Your task to perform on an android device: Go to Reddit.com Image 0: 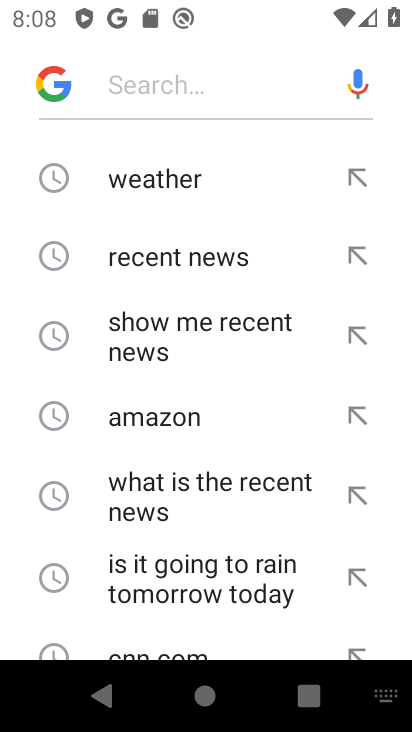
Step 0: press back button
Your task to perform on an android device: Go to Reddit.com Image 1: 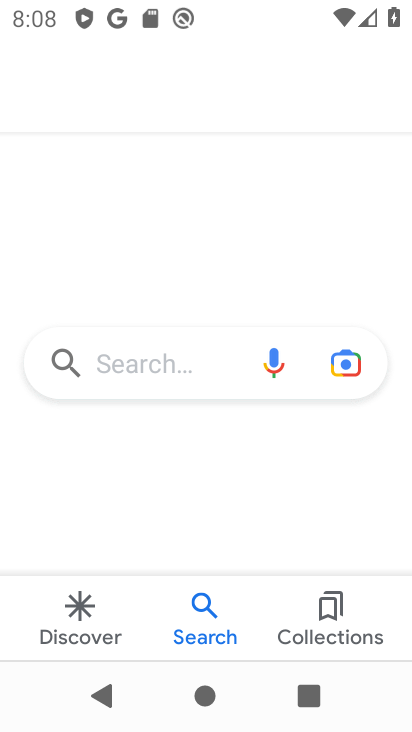
Step 1: press back button
Your task to perform on an android device: Go to Reddit.com Image 2: 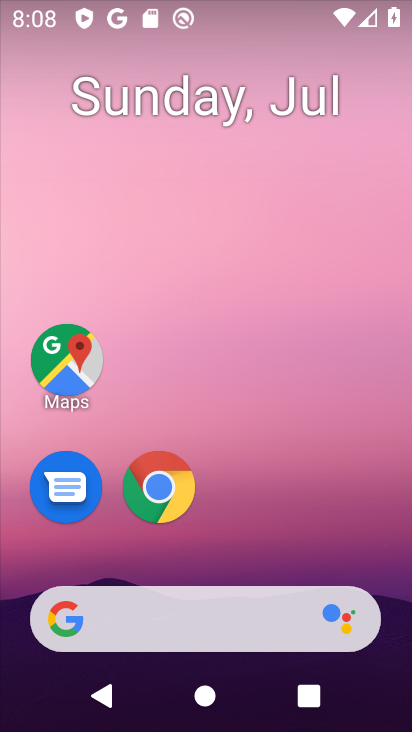
Step 2: click (159, 497)
Your task to perform on an android device: Go to Reddit.com Image 3: 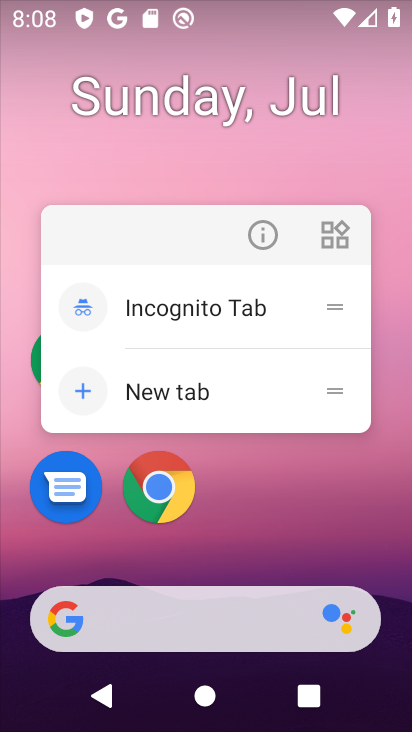
Step 3: click (174, 475)
Your task to perform on an android device: Go to Reddit.com Image 4: 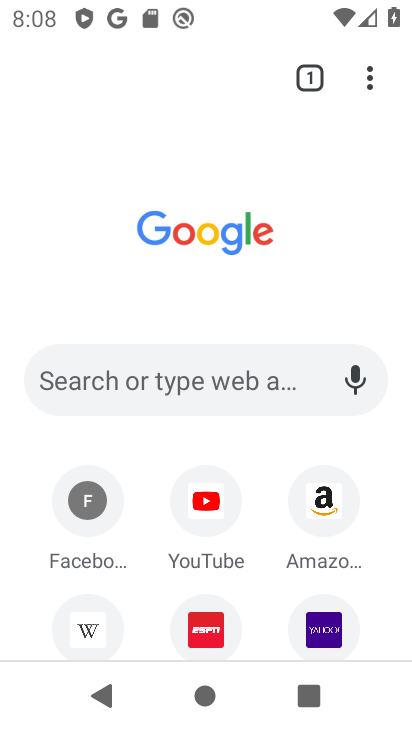
Step 4: click (174, 393)
Your task to perform on an android device: Go to Reddit.com Image 5: 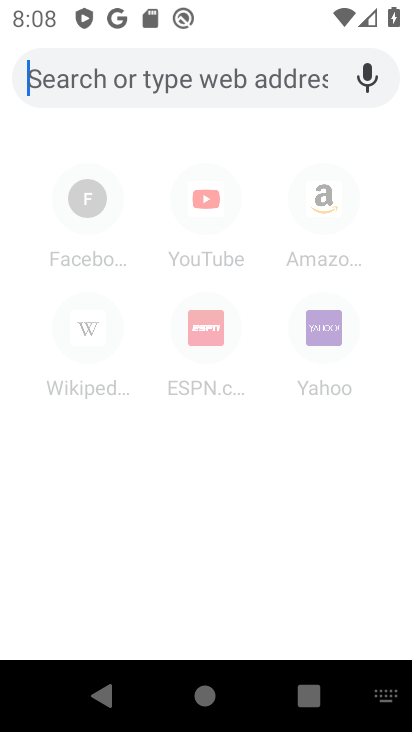
Step 5: type "reddit.com"
Your task to perform on an android device: Go to Reddit.com Image 6: 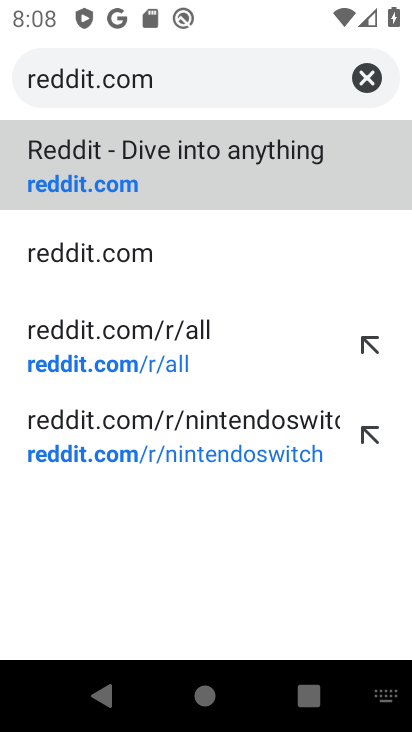
Step 6: click (188, 168)
Your task to perform on an android device: Go to Reddit.com Image 7: 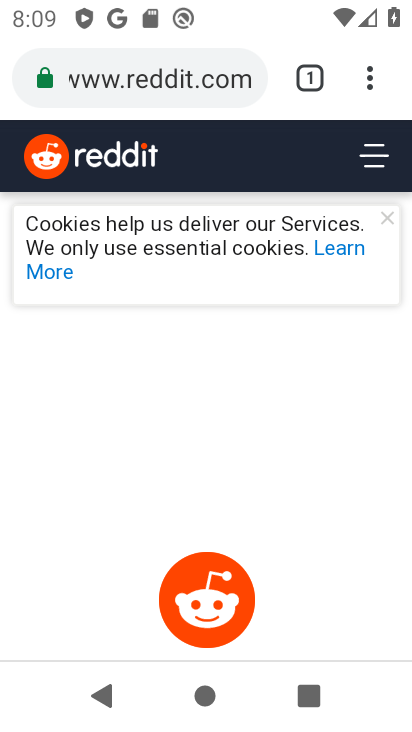
Step 7: task complete